Your task to perform on an android device: What's the weather? Image 0: 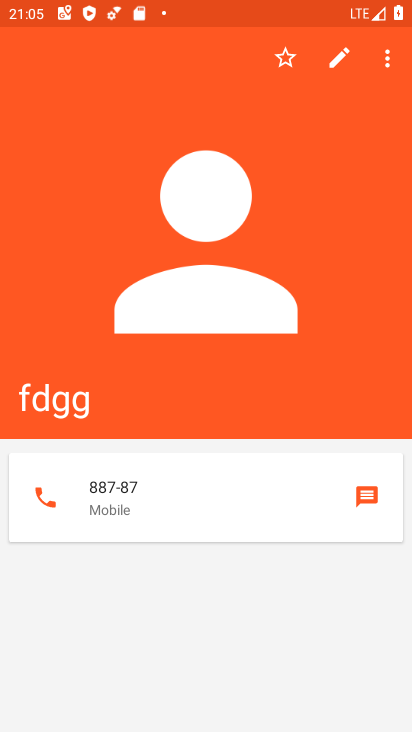
Step 0: press back button
Your task to perform on an android device: What's the weather? Image 1: 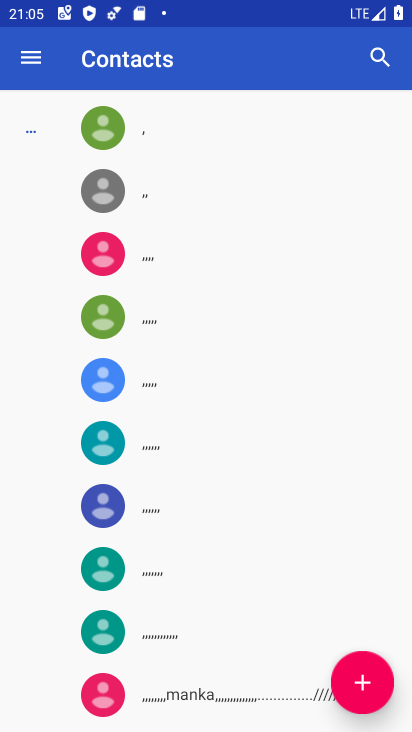
Step 1: press home button
Your task to perform on an android device: What's the weather? Image 2: 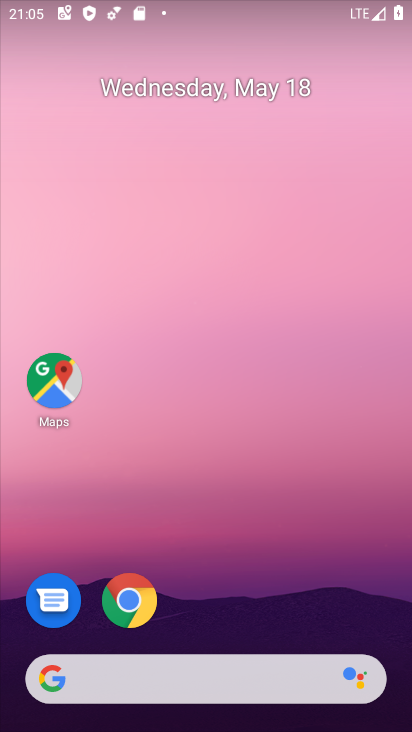
Step 2: click (186, 672)
Your task to perform on an android device: What's the weather? Image 3: 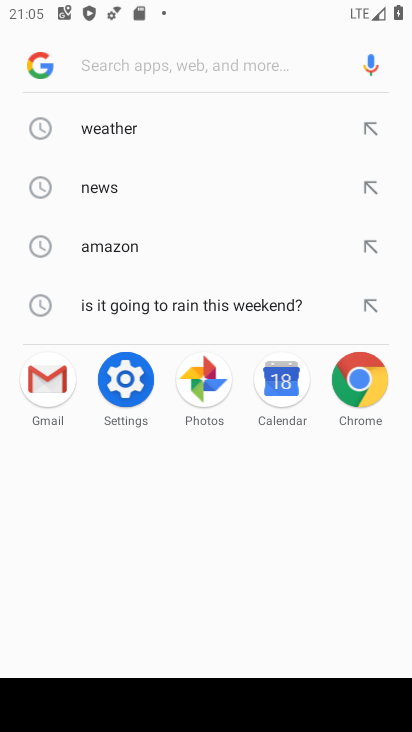
Step 3: click (106, 119)
Your task to perform on an android device: What's the weather? Image 4: 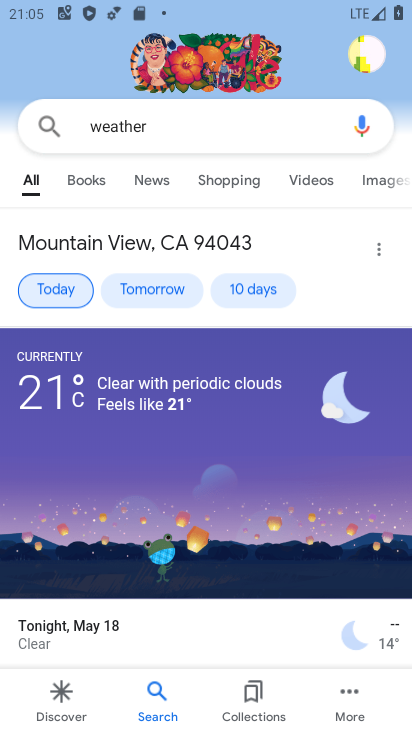
Step 4: task complete